Your task to perform on an android device: allow cookies in the chrome app Image 0: 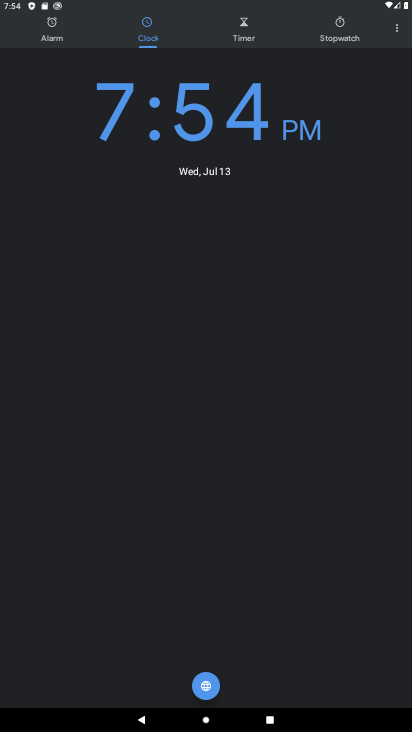
Step 0: click (273, 501)
Your task to perform on an android device: allow cookies in the chrome app Image 1: 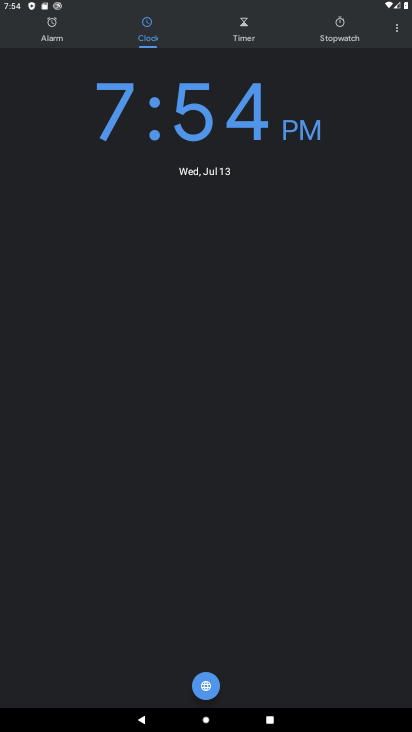
Step 1: drag from (258, 480) to (284, 402)
Your task to perform on an android device: allow cookies in the chrome app Image 2: 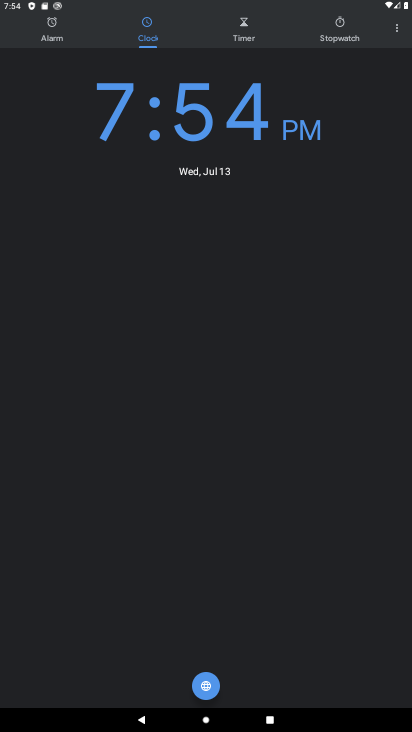
Step 2: press home button
Your task to perform on an android device: allow cookies in the chrome app Image 3: 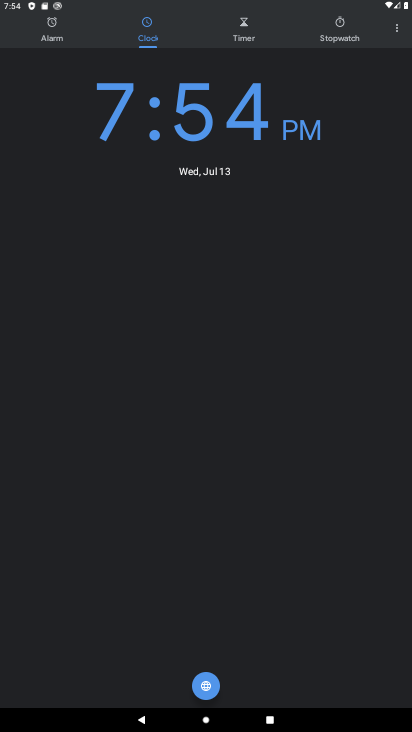
Step 3: drag from (202, 596) to (340, 165)
Your task to perform on an android device: allow cookies in the chrome app Image 4: 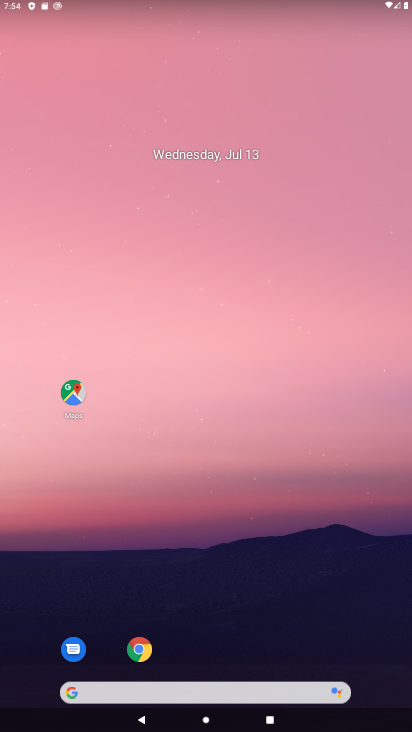
Step 4: drag from (189, 639) to (271, 191)
Your task to perform on an android device: allow cookies in the chrome app Image 5: 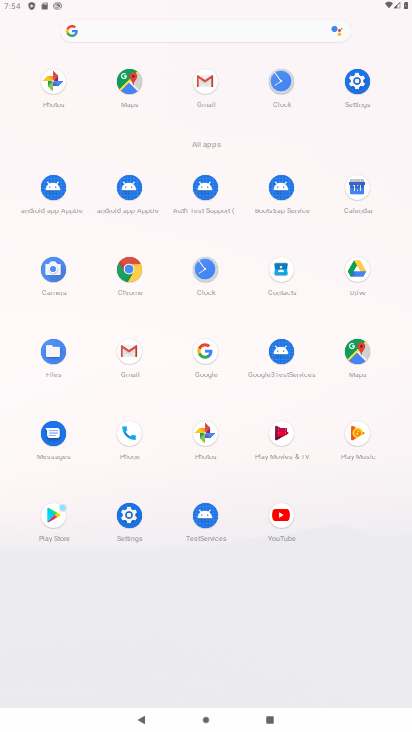
Step 5: drag from (206, 586) to (220, 253)
Your task to perform on an android device: allow cookies in the chrome app Image 6: 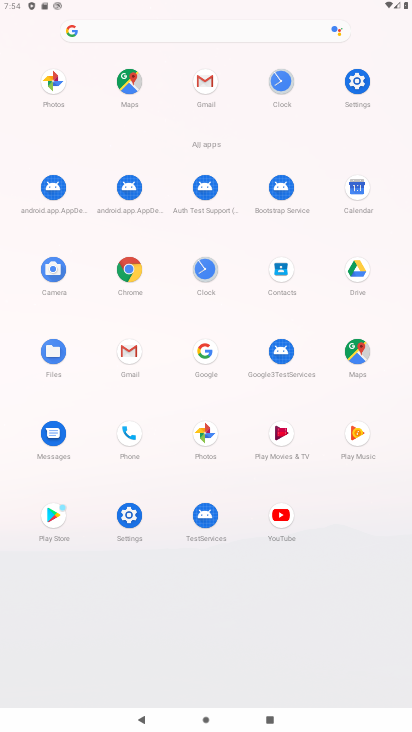
Step 6: click (127, 272)
Your task to perform on an android device: allow cookies in the chrome app Image 7: 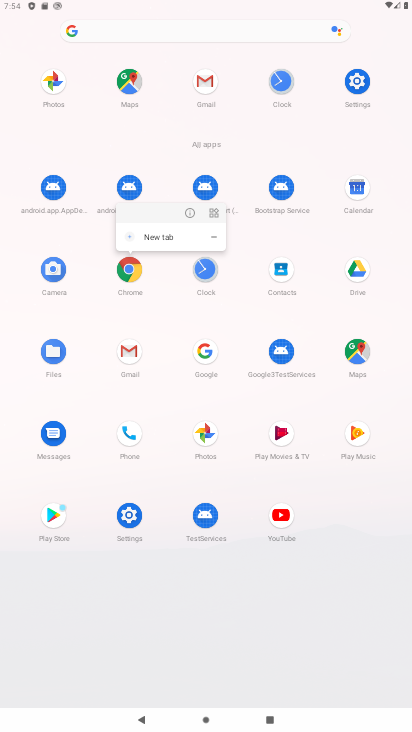
Step 7: click (189, 212)
Your task to perform on an android device: allow cookies in the chrome app Image 8: 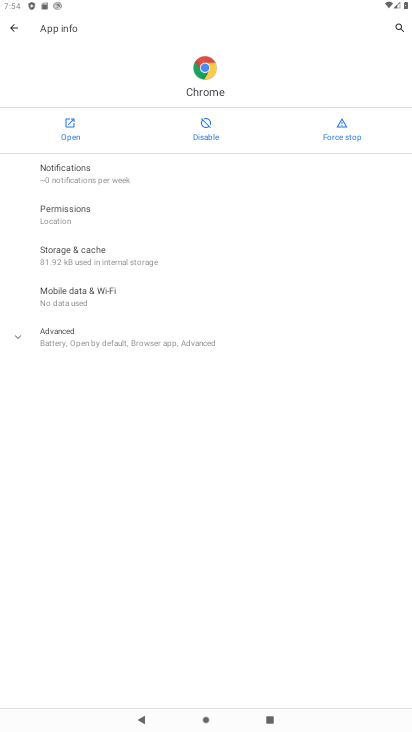
Step 8: click (65, 125)
Your task to perform on an android device: allow cookies in the chrome app Image 9: 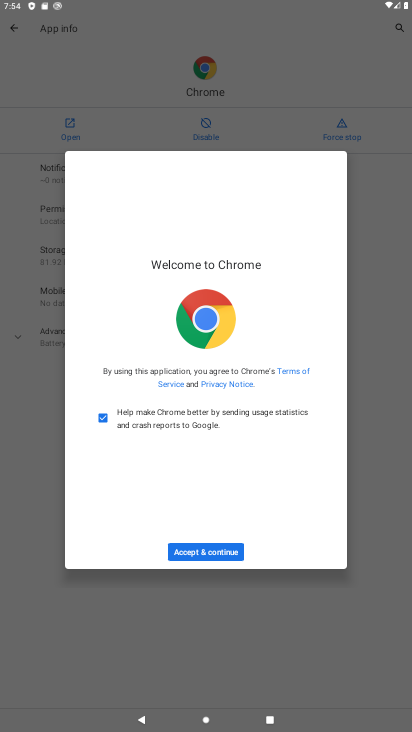
Step 9: click (200, 550)
Your task to perform on an android device: allow cookies in the chrome app Image 10: 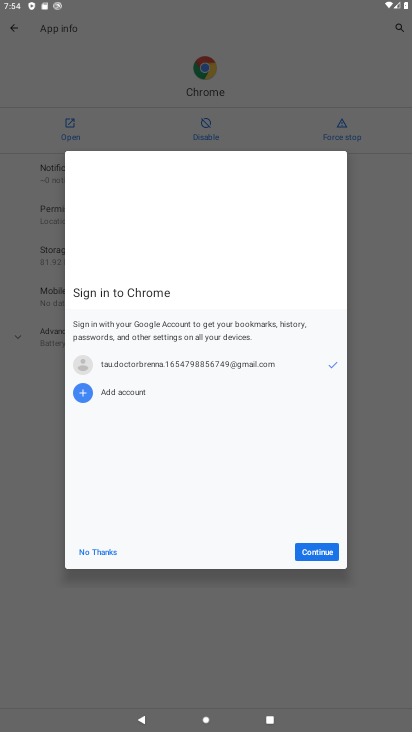
Step 10: click (322, 556)
Your task to perform on an android device: allow cookies in the chrome app Image 11: 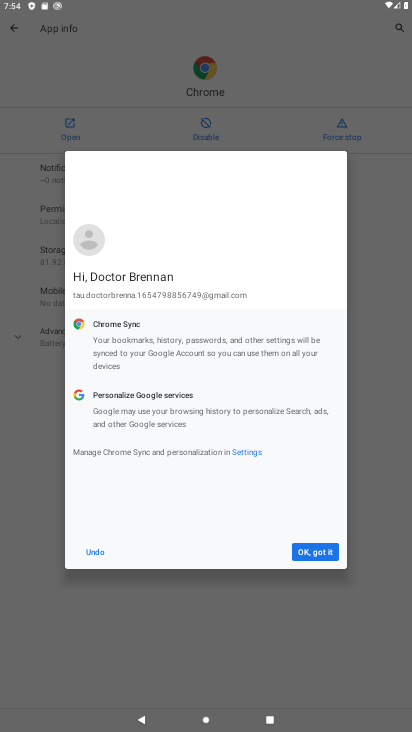
Step 11: click (321, 556)
Your task to perform on an android device: allow cookies in the chrome app Image 12: 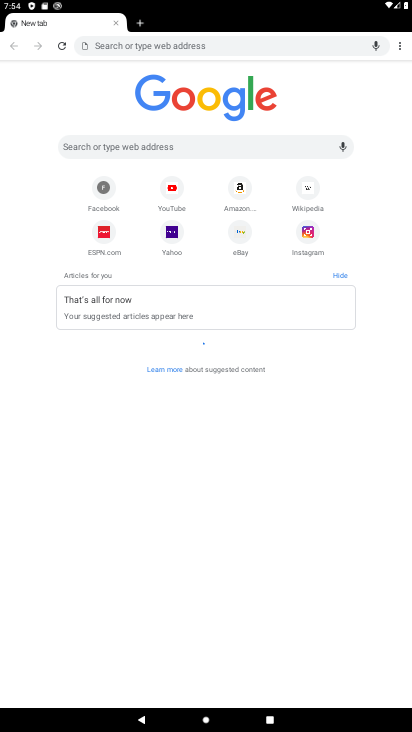
Step 12: click (396, 44)
Your task to perform on an android device: allow cookies in the chrome app Image 13: 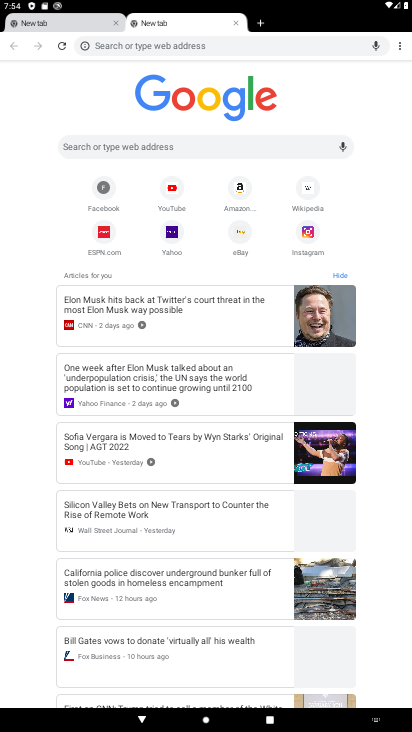
Step 13: drag from (403, 42) to (312, 213)
Your task to perform on an android device: allow cookies in the chrome app Image 14: 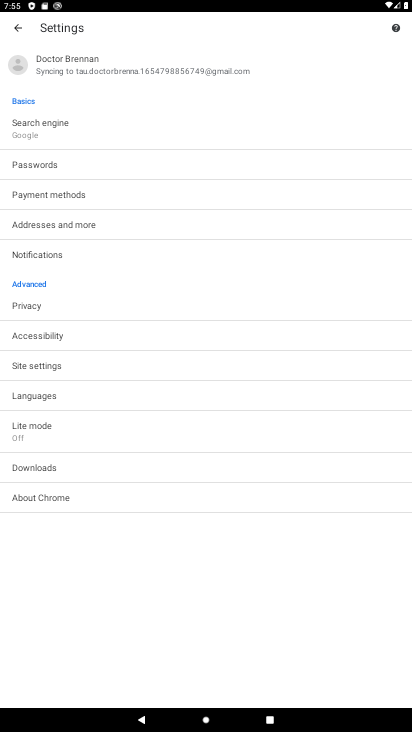
Step 14: click (52, 356)
Your task to perform on an android device: allow cookies in the chrome app Image 15: 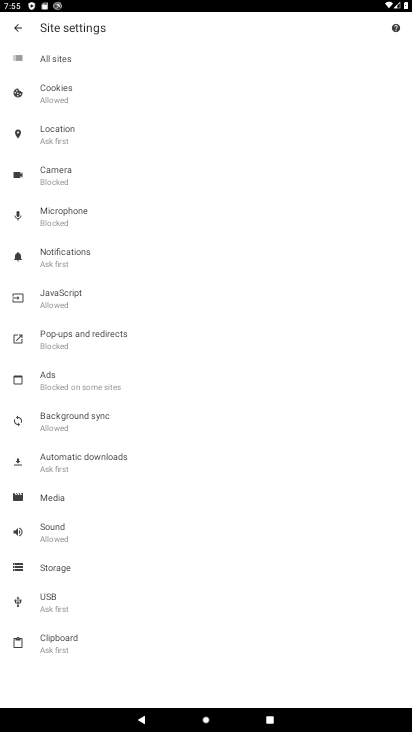
Step 15: click (95, 91)
Your task to perform on an android device: allow cookies in the chrome app Image 16: 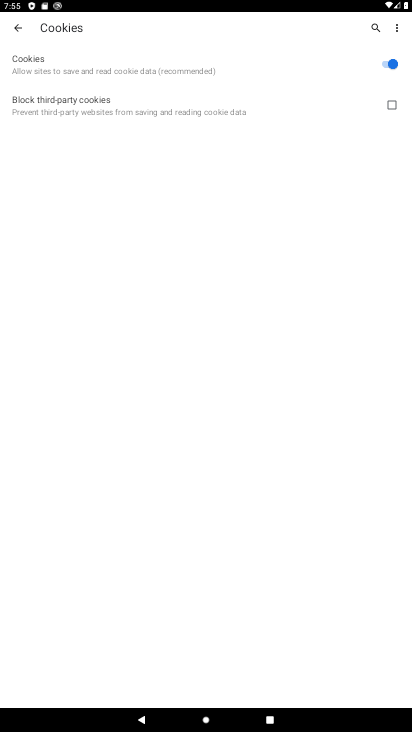
Step 16: task complete